Your task to perform on an android device: What's on my calendar tomorrow? Image 0: 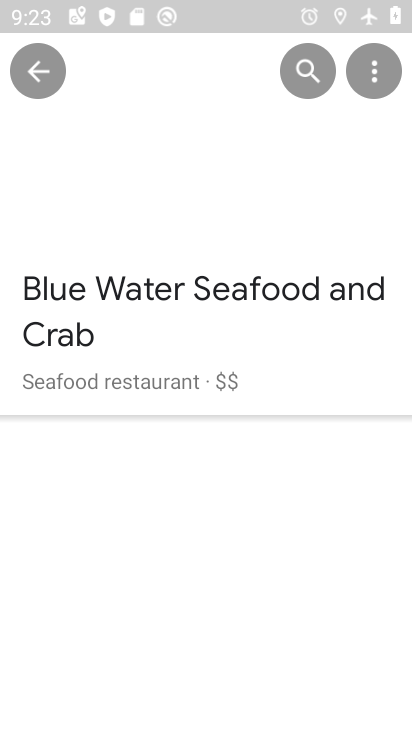
Step 0: press home button
Your task to perform on an android device: What's on my calendar tomorrow? Image 1: 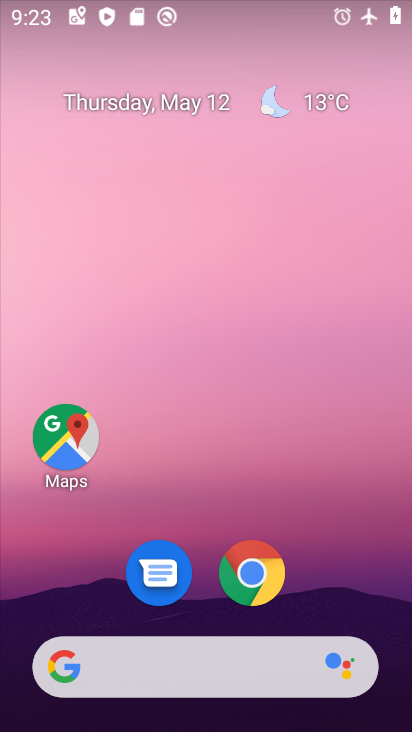
Step 1: drag from (403, 668) to (302, 231)
Your task to perform on an android device: What's on my calendar tomorrow? Image 2: 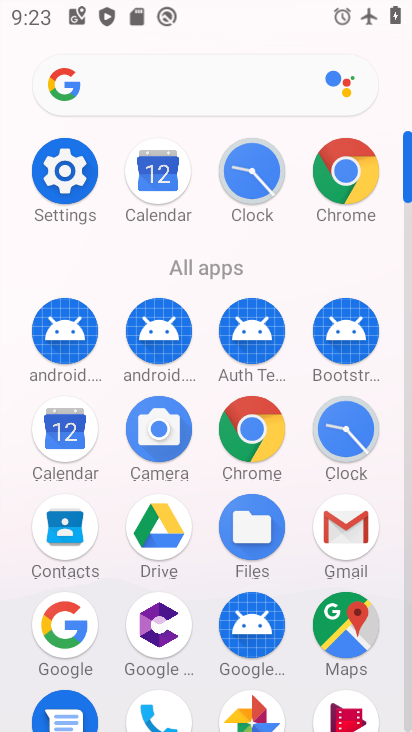
Step 2: click (46, 434)
Your task to perform on an android device: What's on my calendar tomorrow? Image 3: 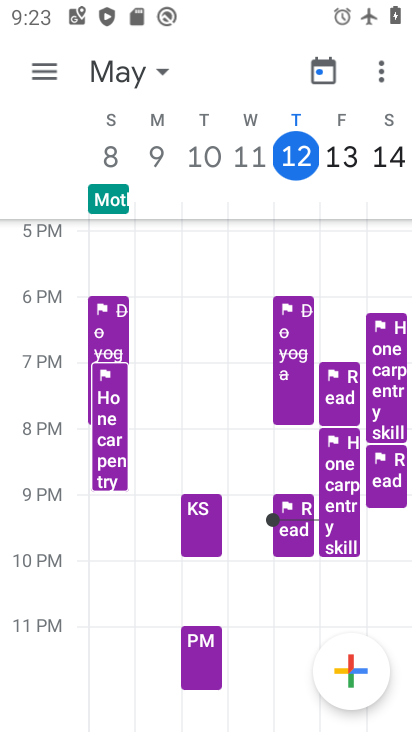
Step 3: click (167, 70)
Your task to perform on an android device: What's on my calendar tomorrow? Image 4: 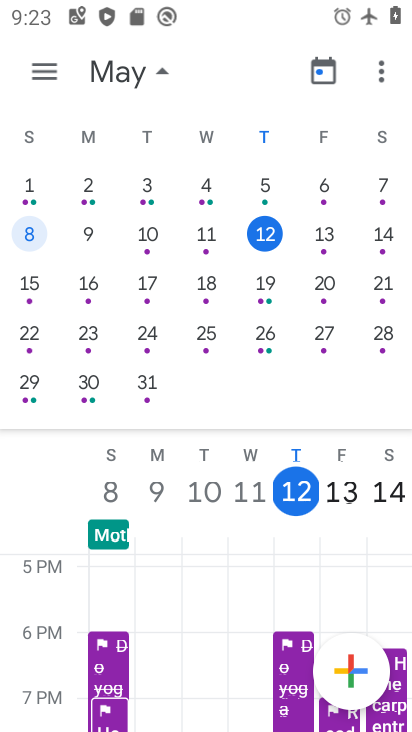
Step 4: click (257, 230)
Your task to perform on an android device: What's on my calendar tomorrow? Image 5: 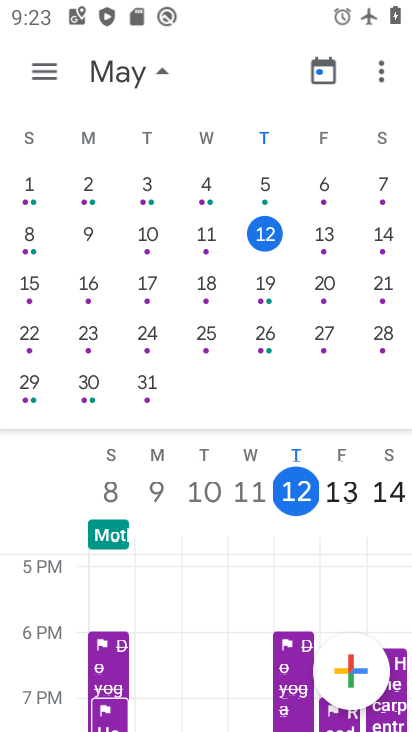
Step 5: click (257, 230)
Your task to perform on an android device: What's on my calendar tomorrow? Image 6: 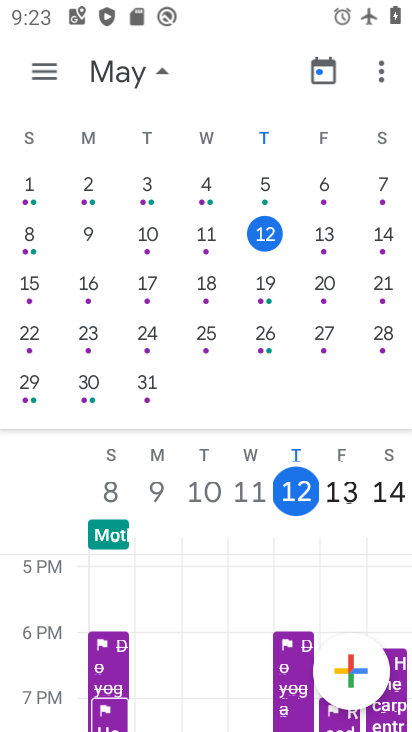
Step 6: click (326, 231)
Your task to perform on an android device: What's on my calendar tomorrow? Image 7: 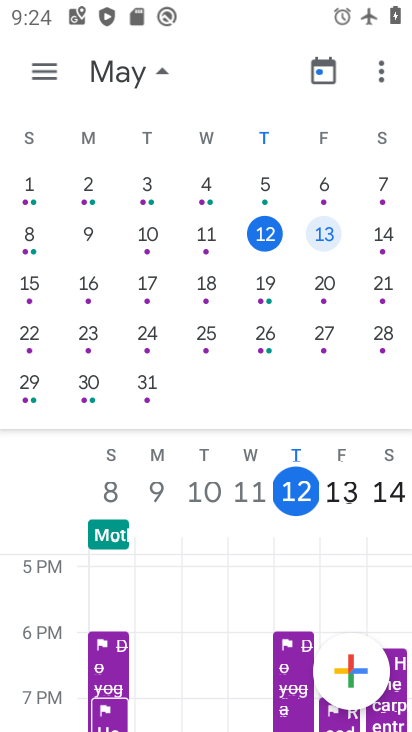
Step 7: task complete